Your task to perform on an android device: turn off location Image 0: 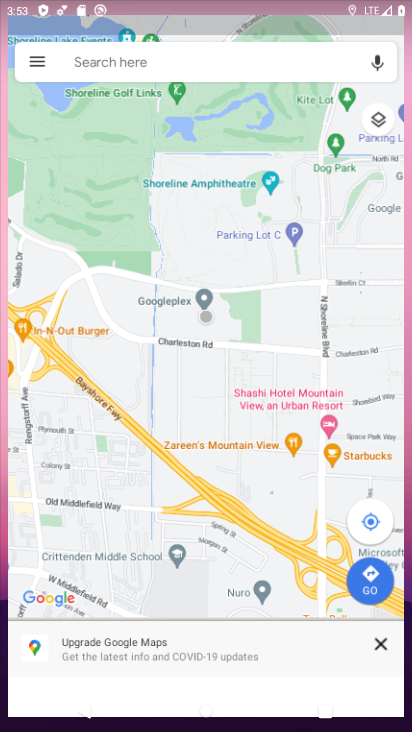
Step 0: drag from (235, 679) to (144, 248)
Your task to perform on an android device: turn off location Image 1: 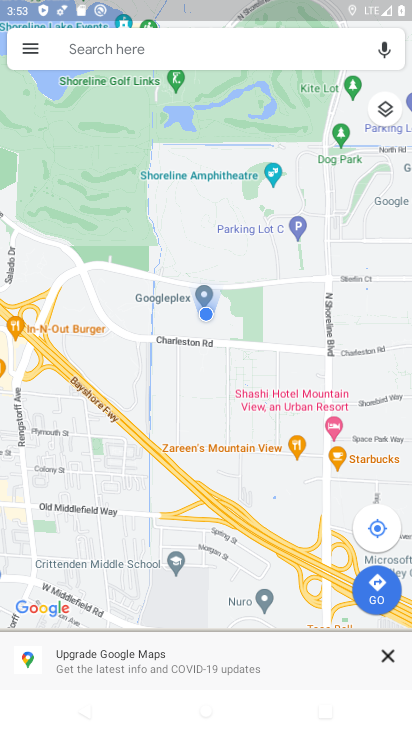
Step 1: press back button
Your task to perform on an android device: turn off location Image 2: 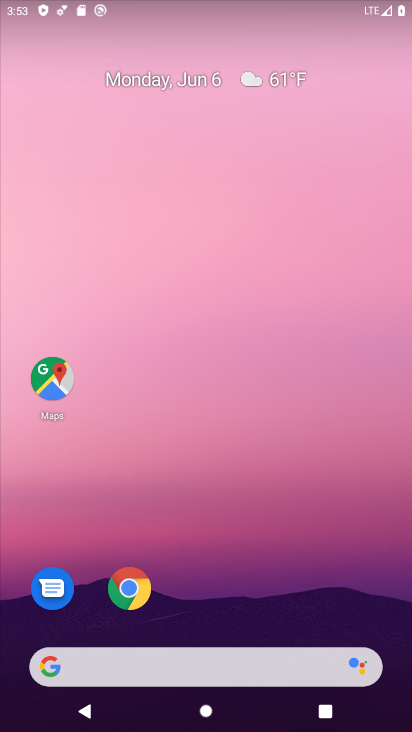
Step 2: drag from (294, 603) to (261, 141)
Your task to perform on an android device: turn off location Image 3: 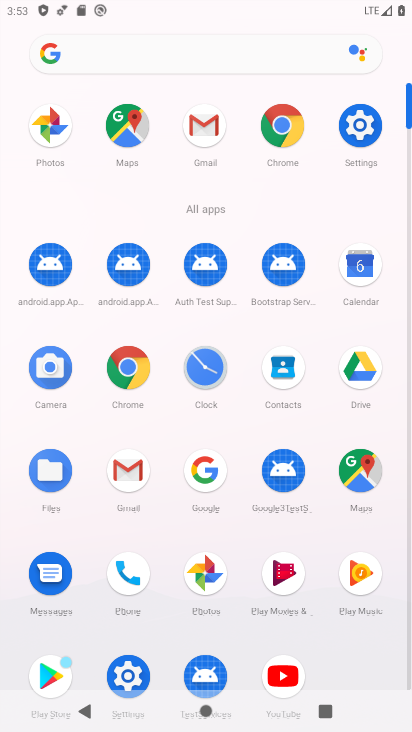
Step 3: click (363, 141)
Your task to perform on an android device: turn off location Image 4: 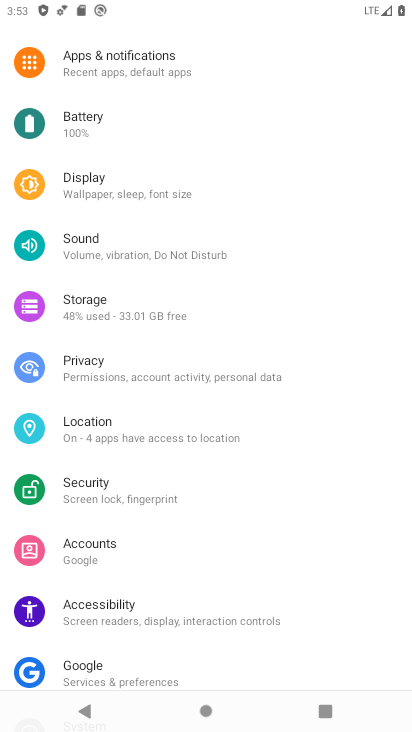
Step 4: click (101, 423)
Your task to perform on an android device: turn off location Image 5: 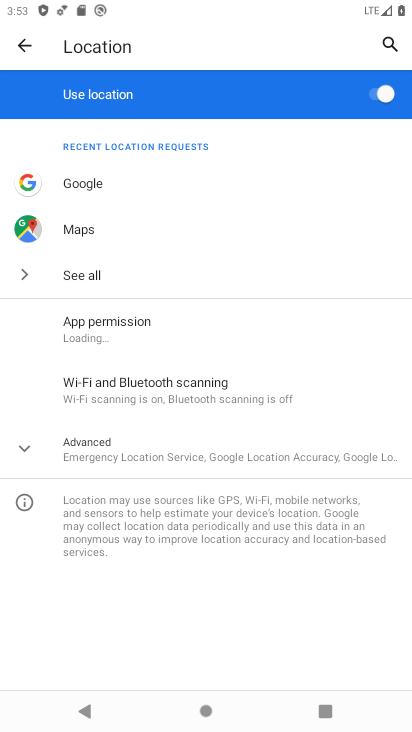
Step 5: click (390, 86)
Your task to perform on an android device: turn off location Image 6: 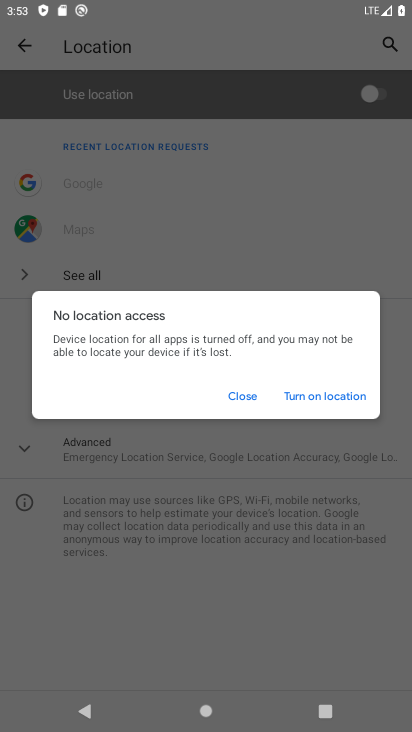
Step 6: task complete